Your task to perform on an android device: turn on sleep mode Image 0: 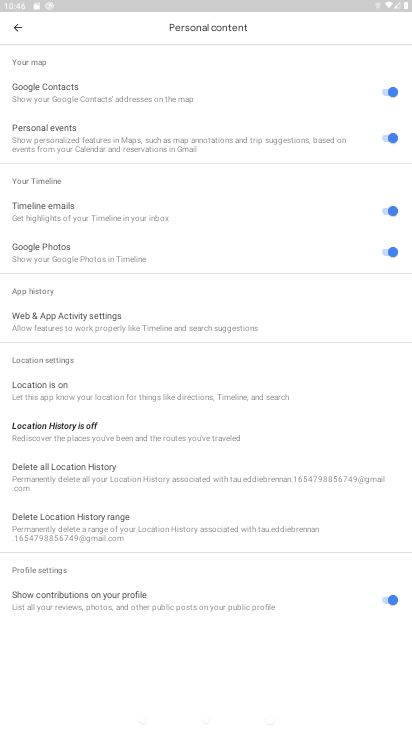
Step 0: press home button
Your task to perform on an android device: turn on sleep mode Image 1: 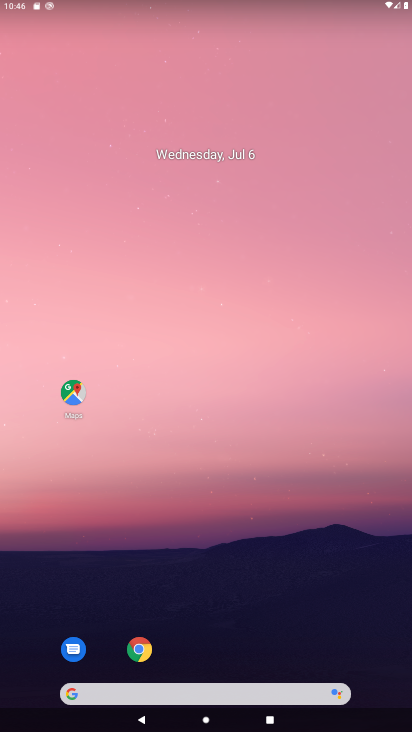
Step 1: drag from (272, 637) to (271, 161)
Your task to perform on an android device: turn on sleep mode Image 2: 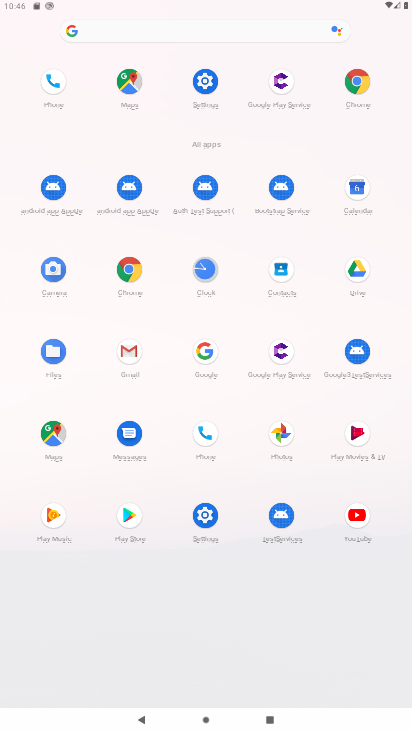
Step 2: click (202, 80)
Your task to perform on an android device: turn on sleep mode Image 3: 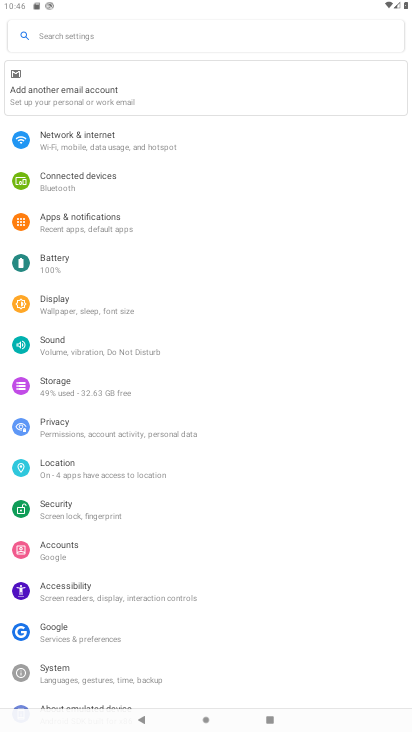
Step 3: click (119, 308)
Your task to perform on an android device: turn on sleep mode Image 4: 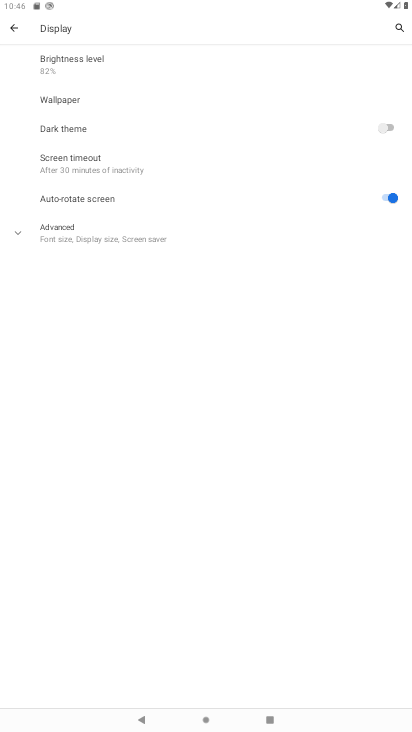
Step 4: click (89, 169)
Your task to perform on an android device: turn on sleep mode Image 5: 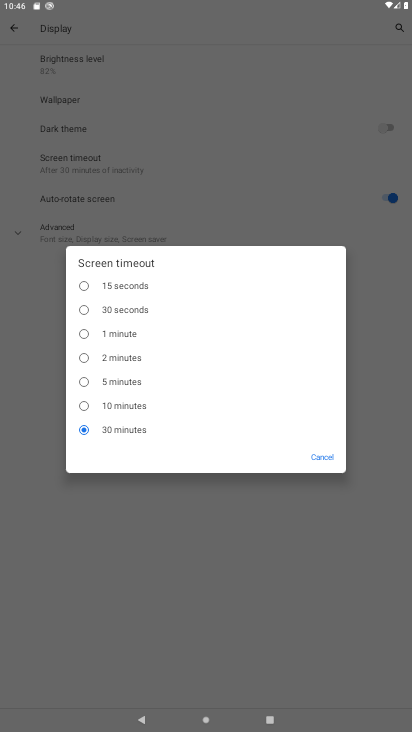
Step 5: task complete